Your task to perform on an android device: open app "VLC for Android" (install if not already installed) and enter user name: "Yves@outlook.com" and password: "internally" Image 0: 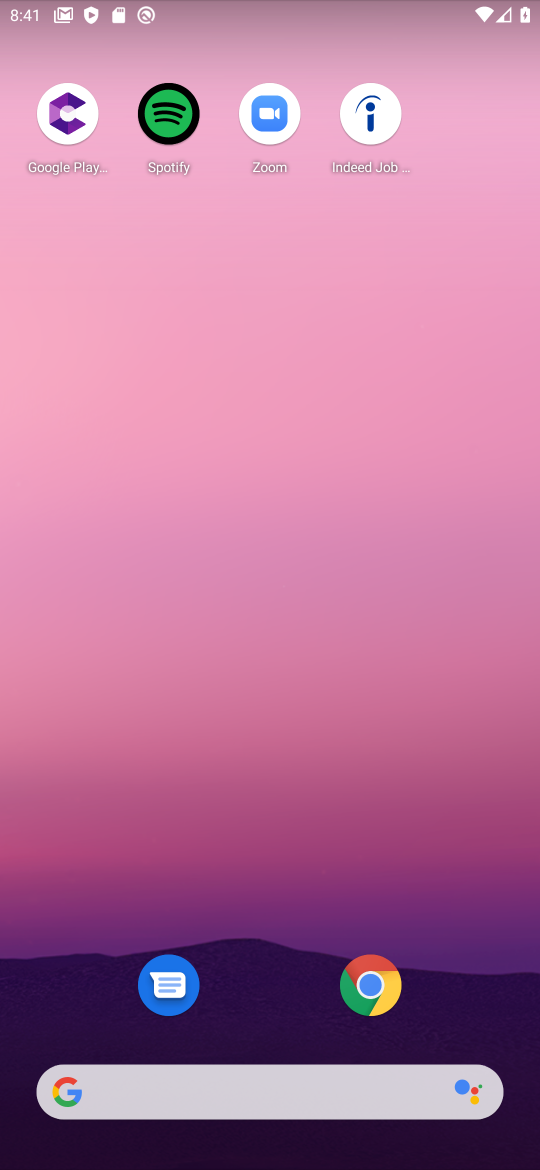
Step 0: drag from (252, 1036) to (289, 221)
Your task to perform on an android device: open app "VLC for Android" (install if not already installed) and enter user name: "Yves@outlook.com" and password: "internally" Image 1: 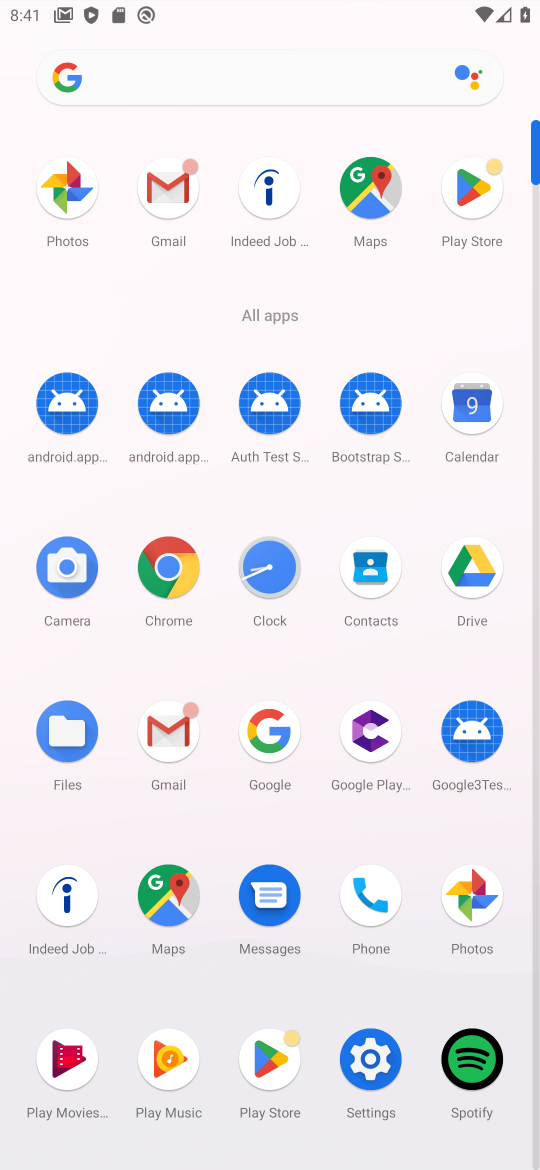
Step 1: click (266, 1072)
Your task to perform on an android device: open app "VLC for Android" (install if not already installed) and enter user name: "Yves@outlook.com" and password: "internally" Image 2: 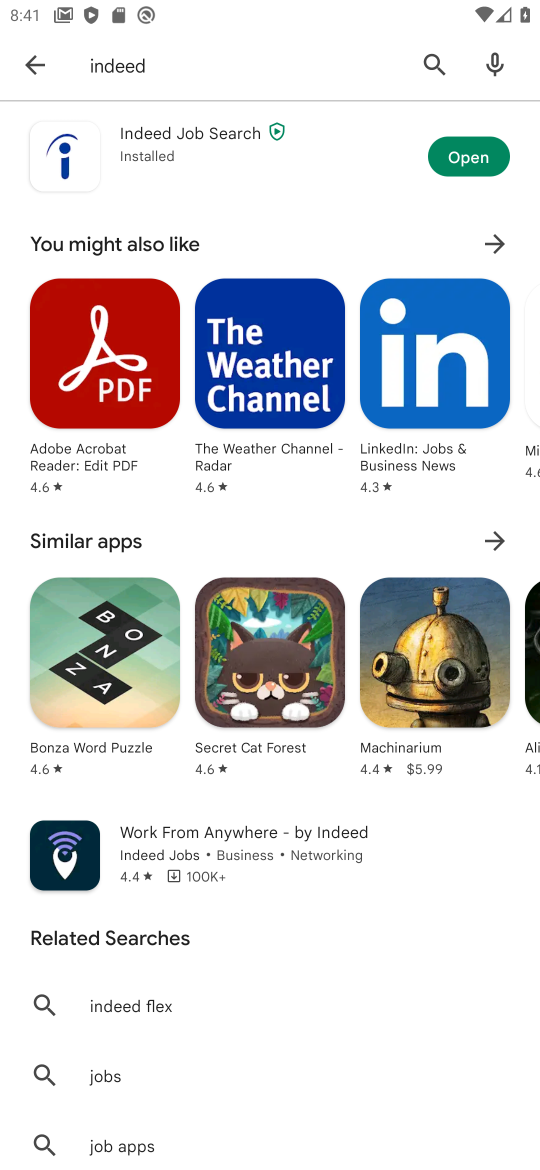
Step 2: click (223, 66)
Your task to perform on an android device: open app "VLC for Android" (install if not already installed) and enter user name: "Yves@outlook.com" and password: "internally" Image 3: 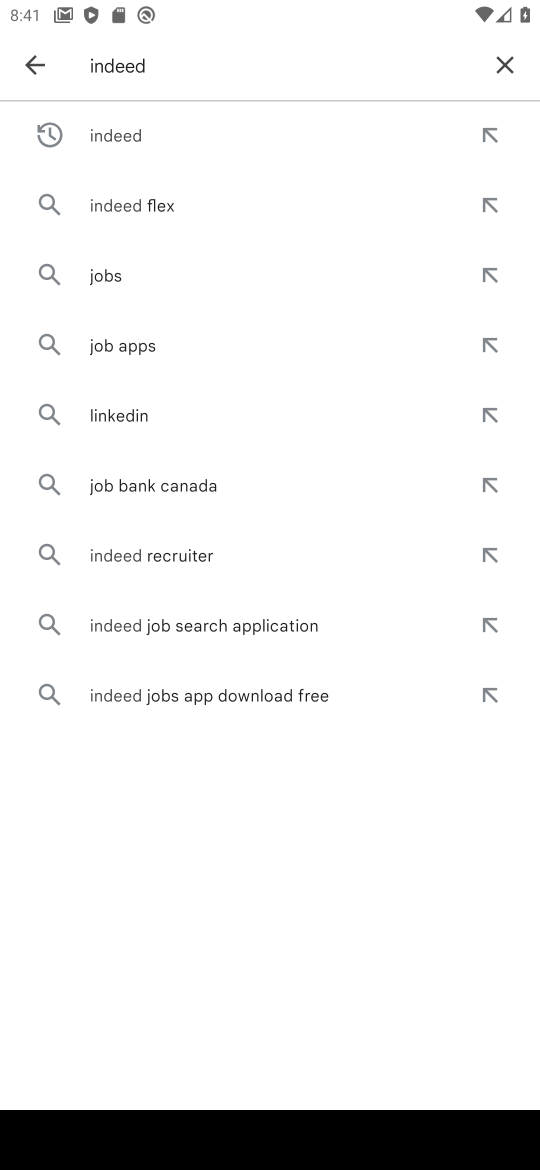
Step 3: click (499, 64)
Your task to perform on an android device: open app "VLC for Android" (install if not already installed) and enter user name: "Yves@outlook.com" and password: "internally" Image 4: 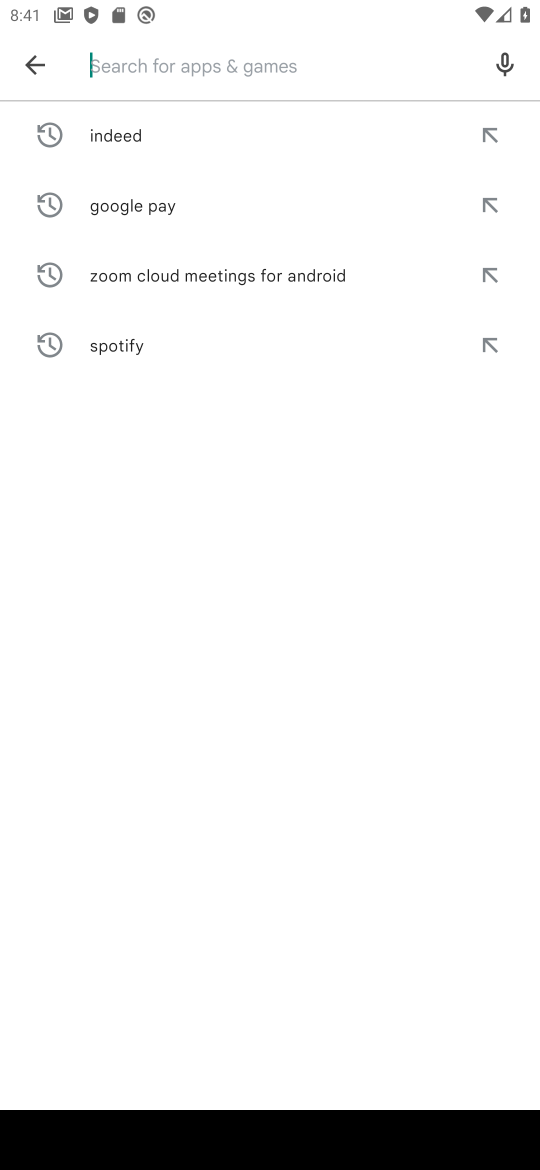
Step 4: type "Vlc"
Your task to perform on an android device: open app "VLC for Android" (install if not already installed) and enter user name: "Yves@outlook.com" and password: "internally" Image 5: 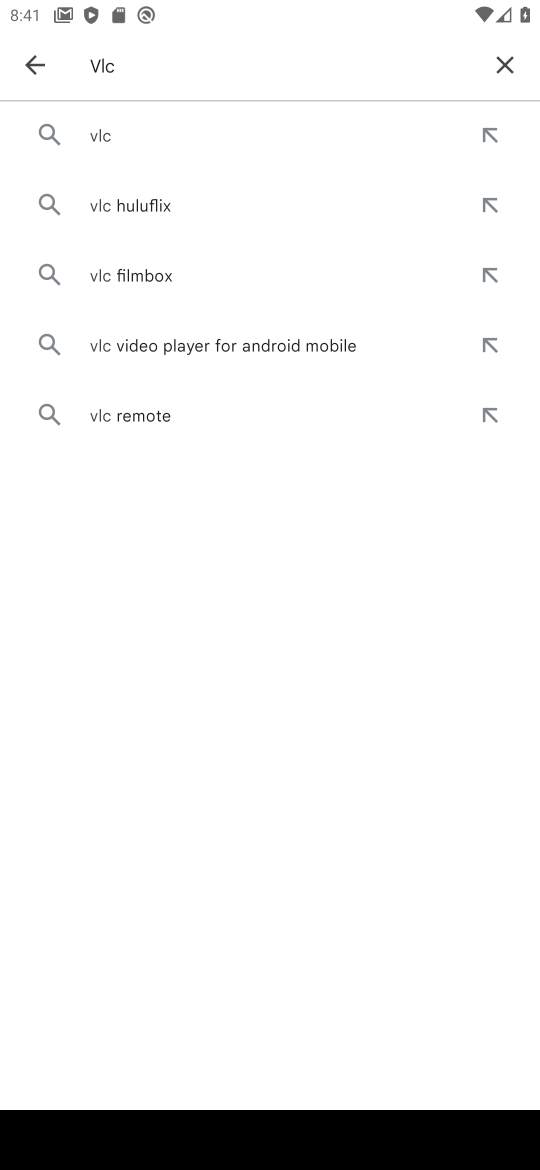
Step 5: click (103, 139)
Your task to perform on an android device: open app "VLC for Android" (install if not already installed) and enter user name: "Yves@outlook.com" and password: "internally" Image 6: 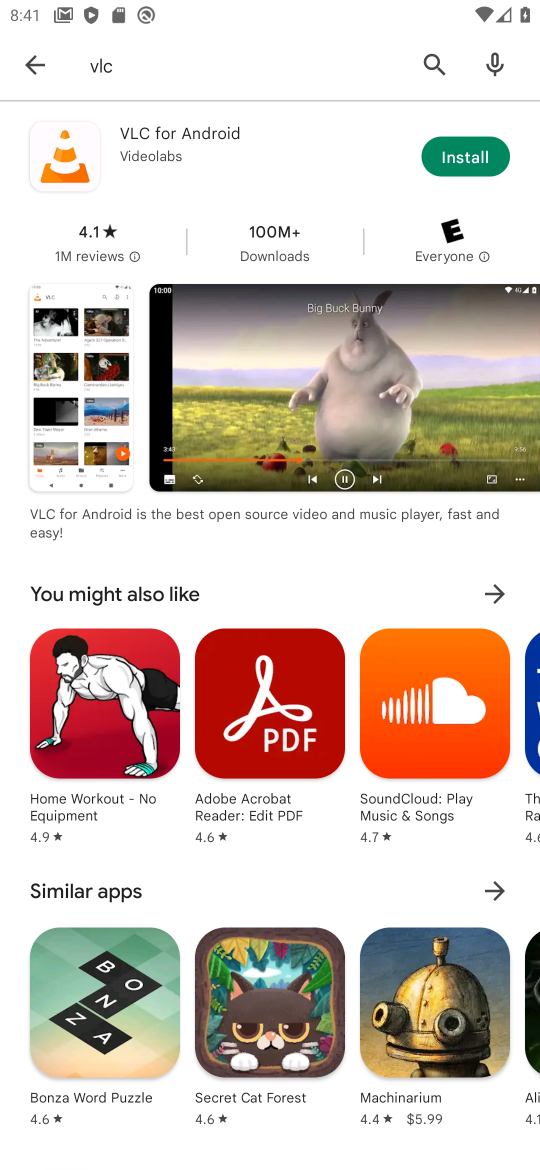
Step 6: click (462, 153)
Your task to perform on an android device: open app "VLC for Android" (install if not already installed) and enter user name: "Yves@outlook.com" and password: "internally" Image 7: 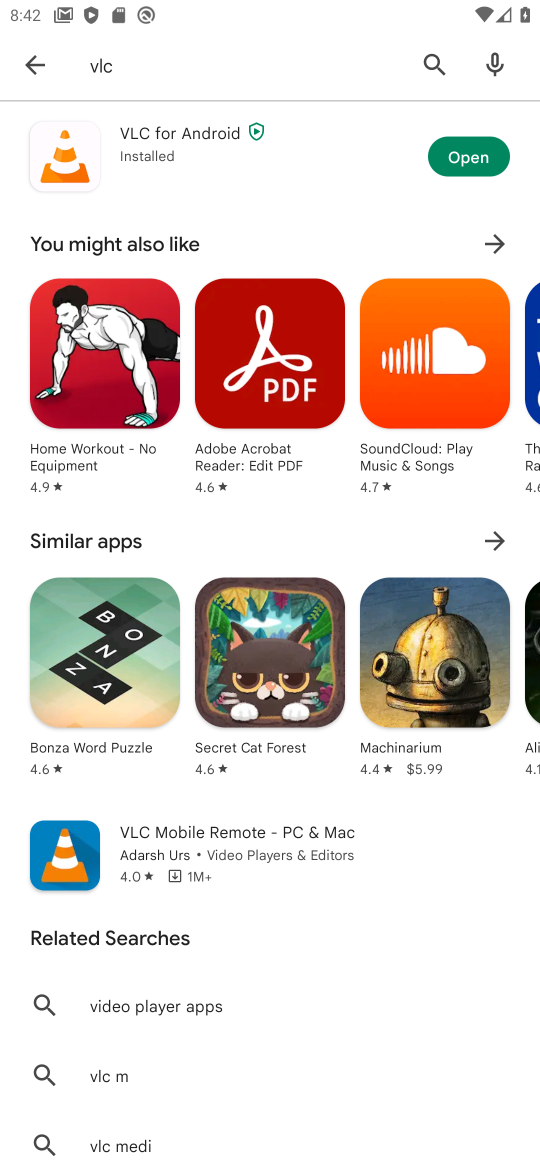
Step 7: click (468, 164)
Your task to perform on an android device: open app "VLC for Android" (install if not already installed) and enter user name: "Yves@outlook.com" and password: "internally" Image 8: 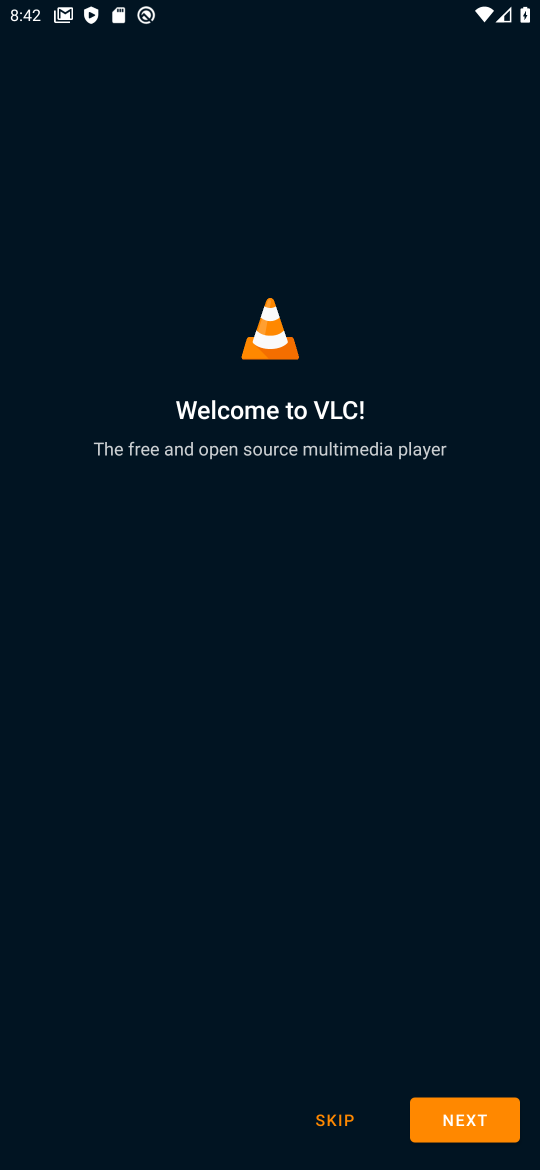
Step 8: click (477, 1121)
Your task to perform on an android device: open app "VLC for Android" (install if not already installed) and enter user name: "Yves@outlook.com" and password: "internally" Image 9: 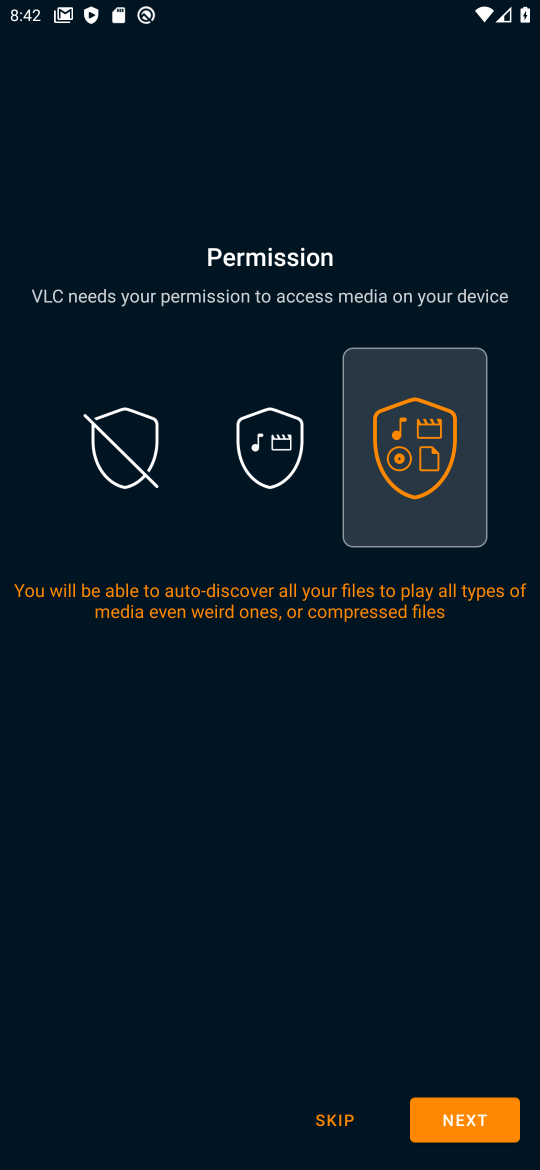
Step 9: click (477, 1121)
Your task to perform on an android device: open app "VLC for Android" (install if not already installed) and enter user name: "Yves@outlook.com" and password: "internally" Image 10: 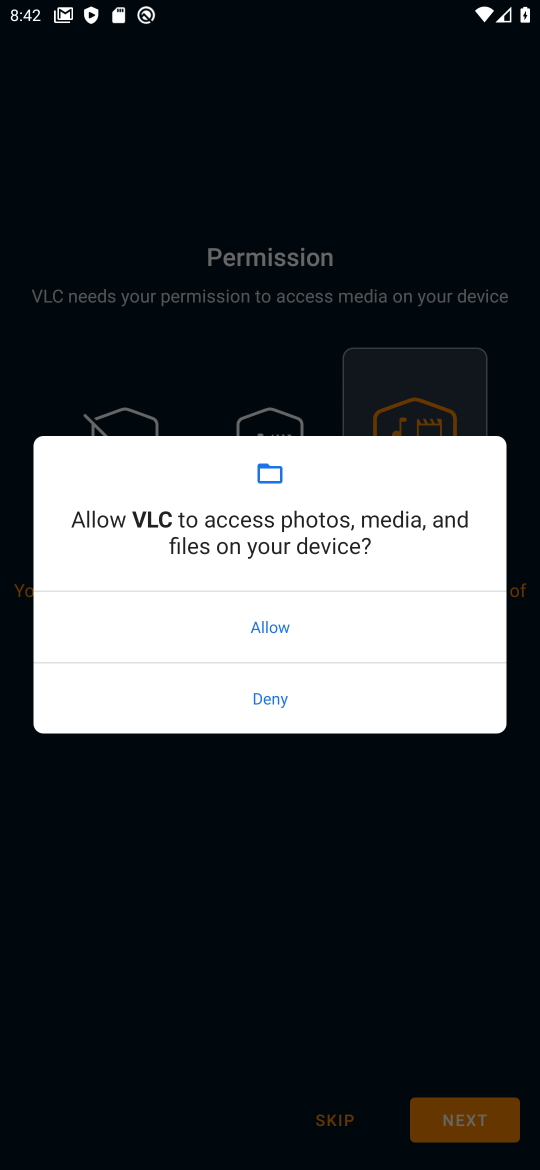
Step 10: click (322, 618)
Your task to perform on an android device: open app "VLC for Android" (install if not already installed) and enter user name: "Yves@outlook.com" and password: "internally" Image 11: 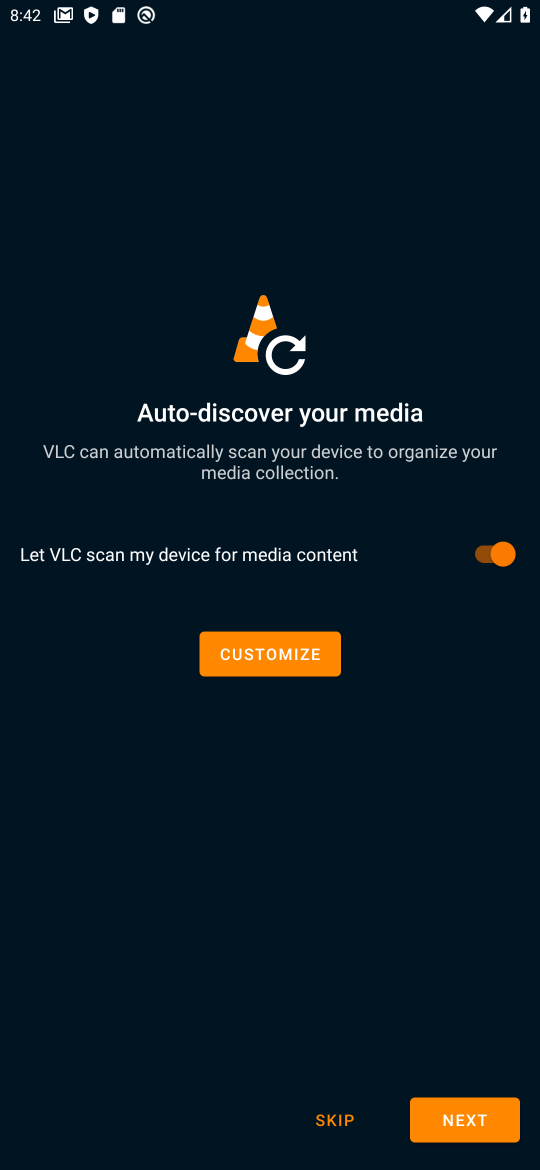
Step 11: click (463, 1129)
Your task to perform on an android device: open app "VLC for Android" (install if not already installed) and enter user name: "Yves@outlook.com" and password: "internally" Image 12: 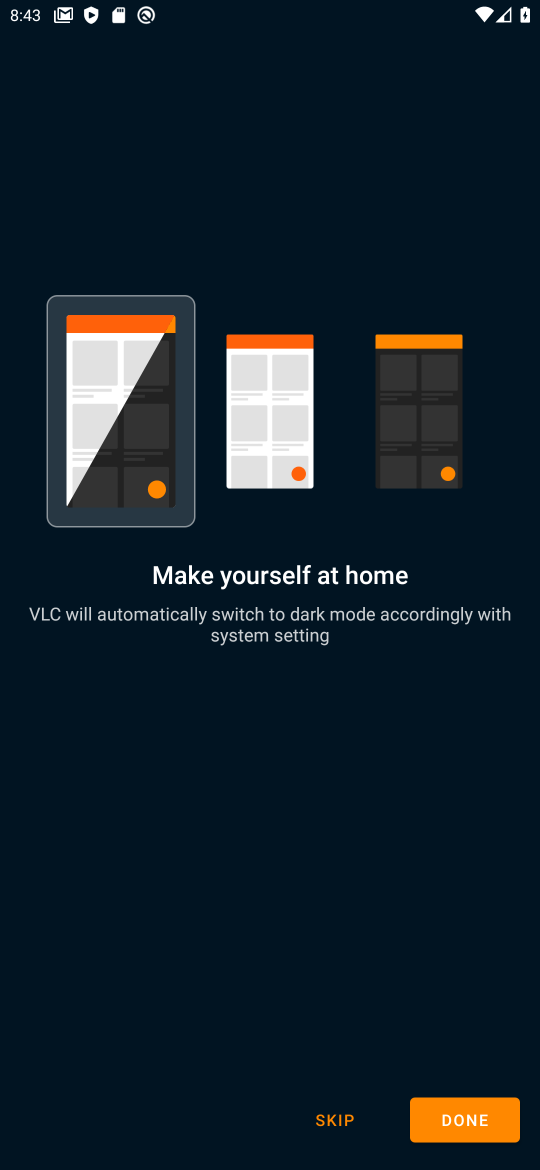
Step 12: click (475, 1119)
Your task to perform on an android device: open app "VLC for Android" (install if not already installed) and enter user name: "Yves@outlook.com" and password: "internally" Image 13: 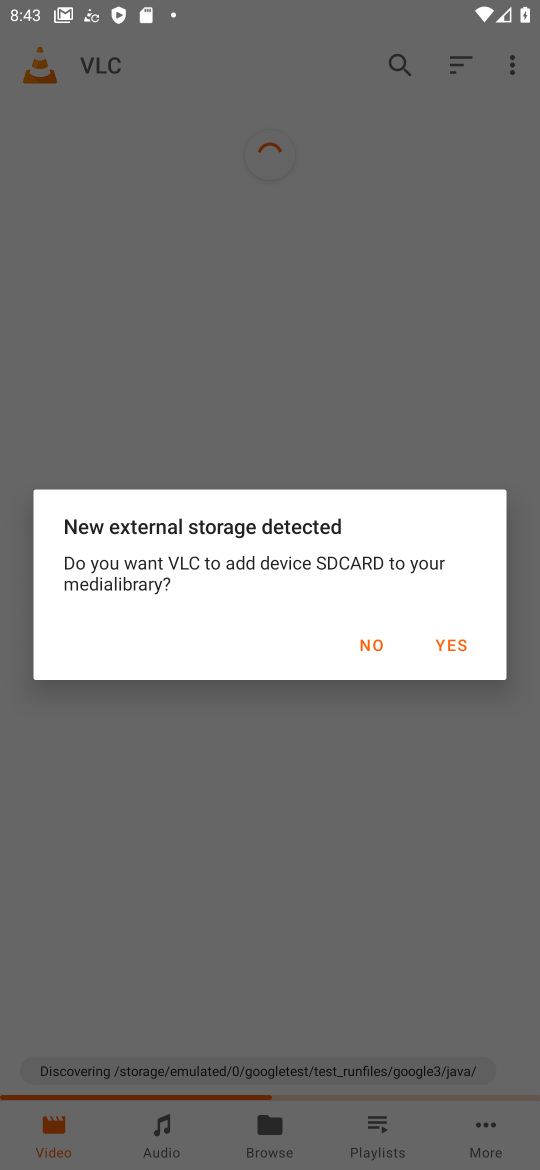
Step 13: click (458, 636)
Your task to perform on an android device: open app "VLC for Android" (install if not already installed) and enter user name: "Yves@outlook.com" and password: "internally" Image 14: 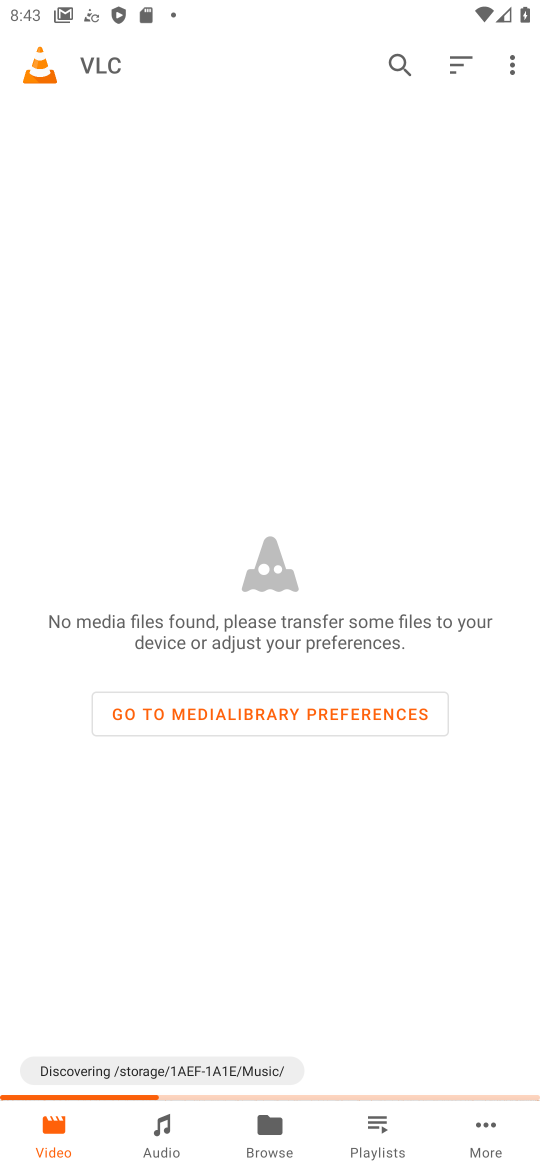
Step 14: click (490, 1123)
Your task to perform on an android device: open app "VLC for Android" (install if not already installed) and enter user name: "Yves@outlook.com" and password: "internally" Image 15: 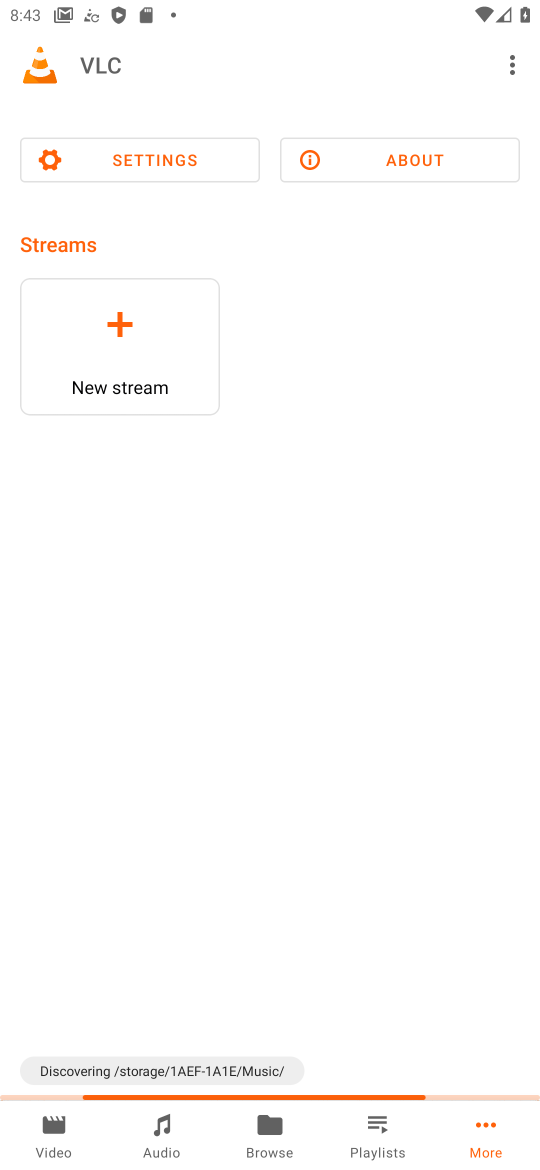
Step 15: click (504, 65)
Your task to perform on an android device: open app "VLC for Android" (install if not already installed) and enter user name: "Yves@outlook.com" and password: "internally" Image 16: 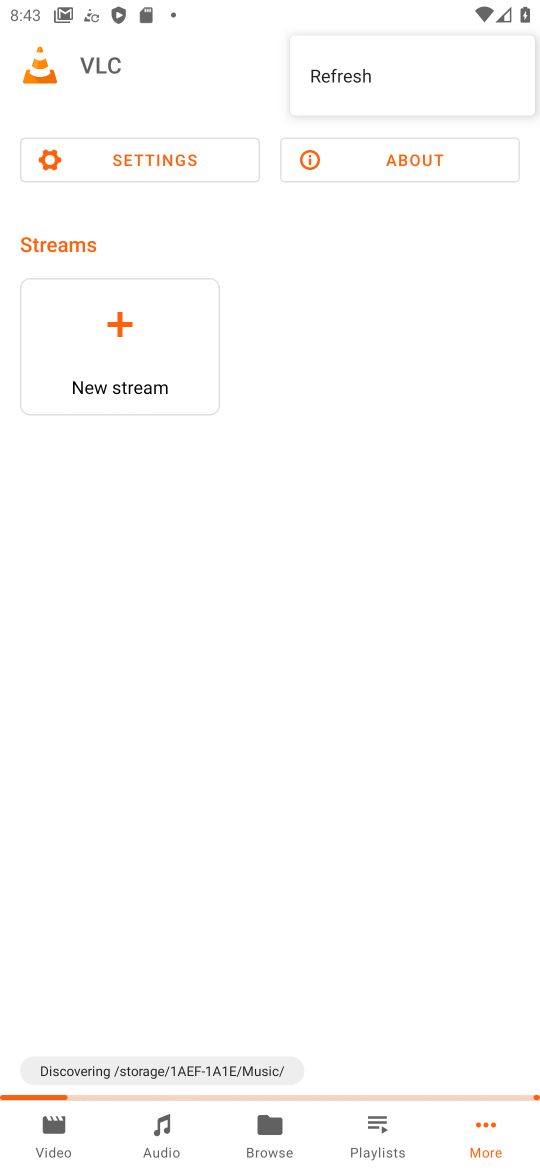
Step 16: click (140, 153)
Your task to perform on an android device: open app "VLC for Android" (install if not already installed) and enter user name: "Yves@outlook.com" and password: "internally" Image 17: 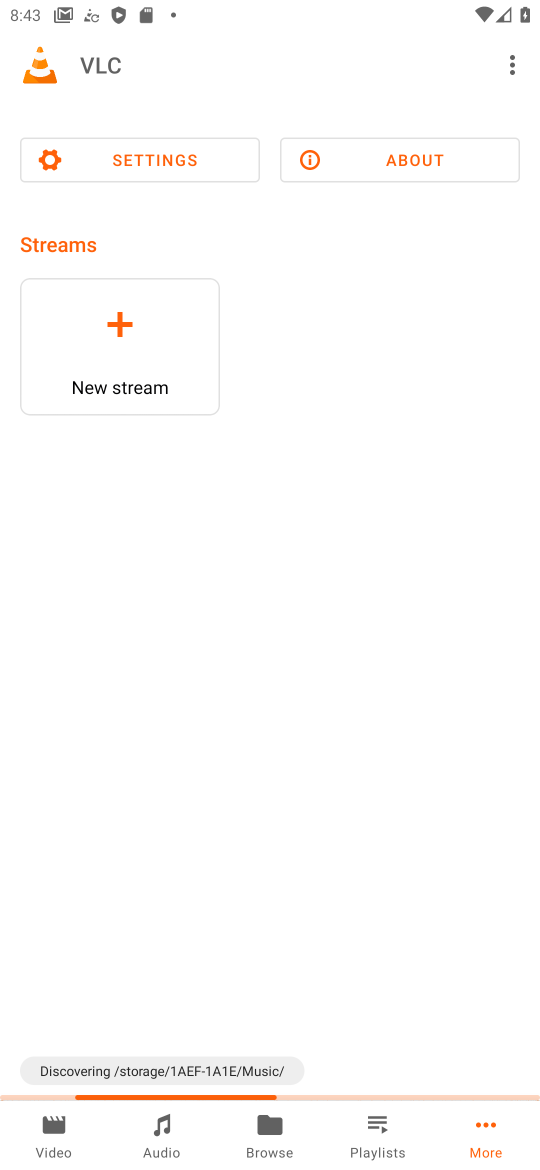
Step 17: click (139, 155)
Your task to perform on an android device: open app "VLC for Android" (install if not already installed) and enter user name: "Yves@outlook.com" and password: "internally" Image 18: 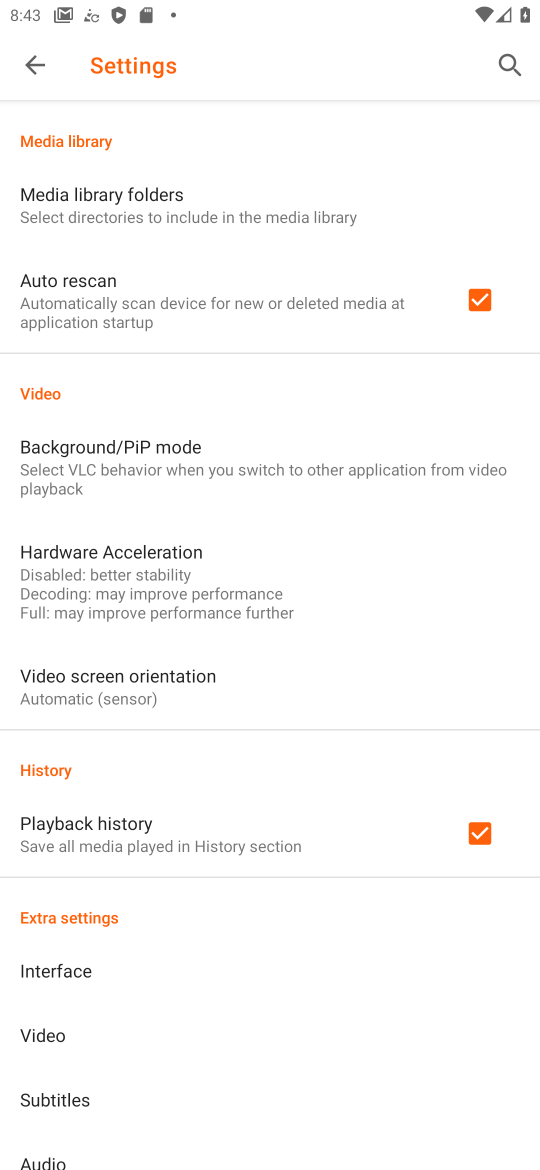
Step 18: task complete